Your task to perform on an android device: turn off sleep mode Image 0: 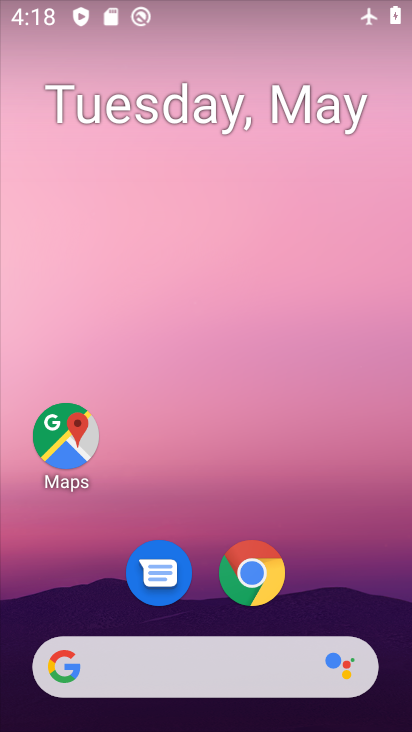
Step 0: drag from (292, 478) to (262, 227)
Your task to perform on an android device: turn off sleep mode Image 1: 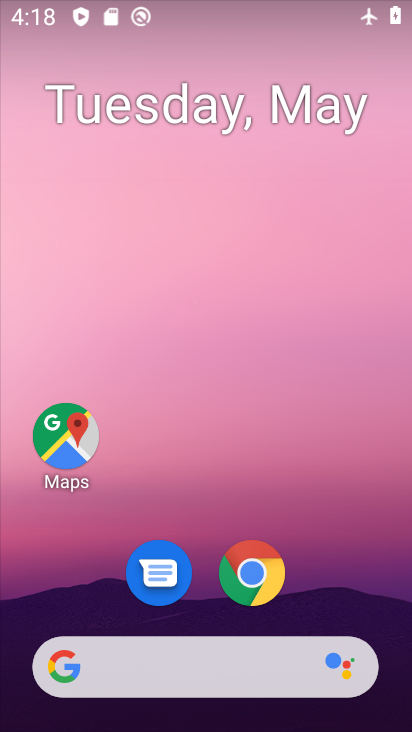
Step 1: drag from (325, 470) to (292, 101)
Your task to perform on an android device: turn off sleep mode Image 2: 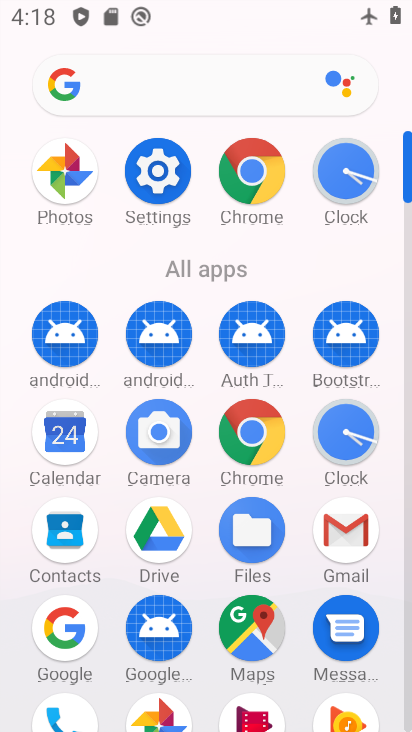
Step 2: click (164, 166)
Your task to perform on an android device: turn off sleep mode Image 3: 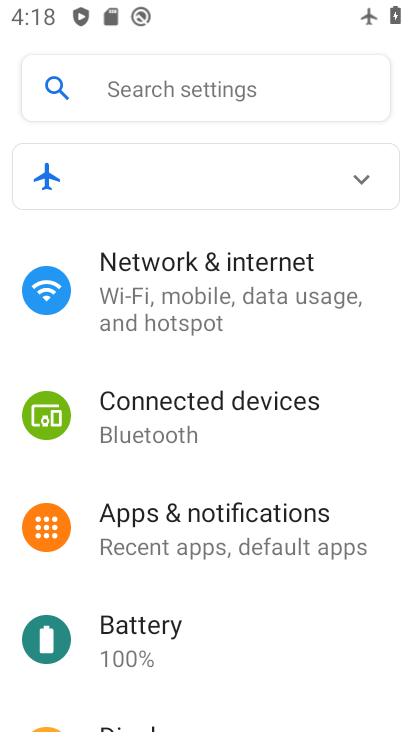
Step 3: drag from (227, 535) to (214, 167)
Your task to perform on an android device: turn off sleep mode Image 4: 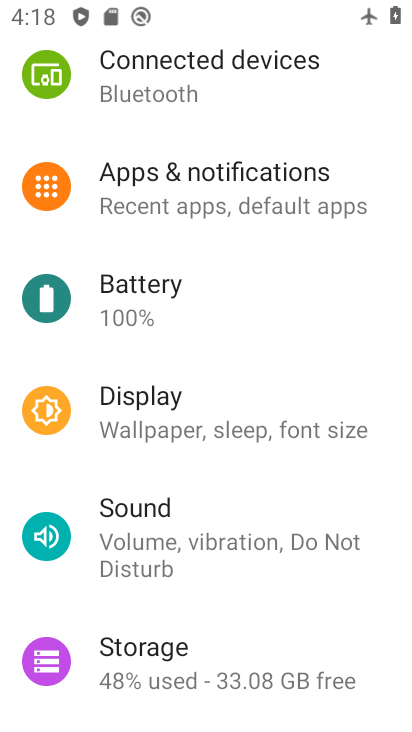
Step 4: click (163, 426)
Your task to perform on an android device: turn off sleep mode Image 5: 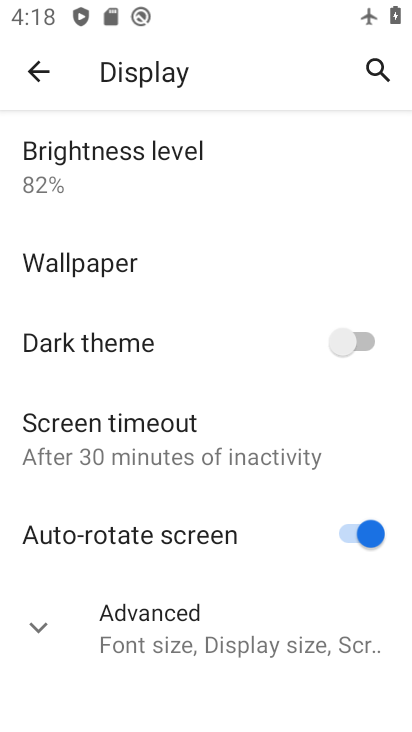
Step 5: click (180, 448)
Your task to perform on an android device: turn off sleep mode Image 6: 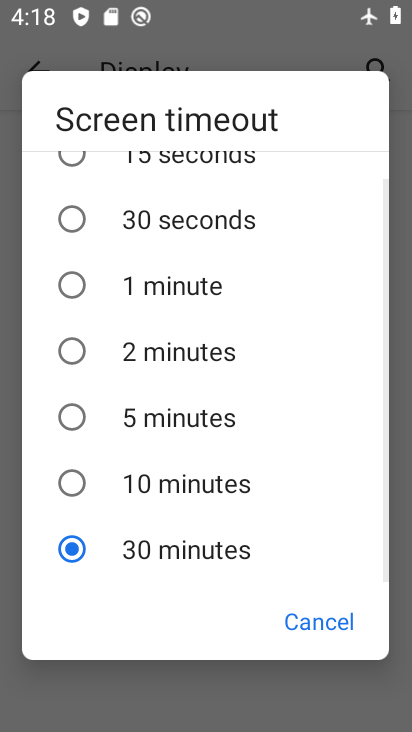
Step 6: task complete